Your task to perform on an android device: Do I have any events today? Image 0: 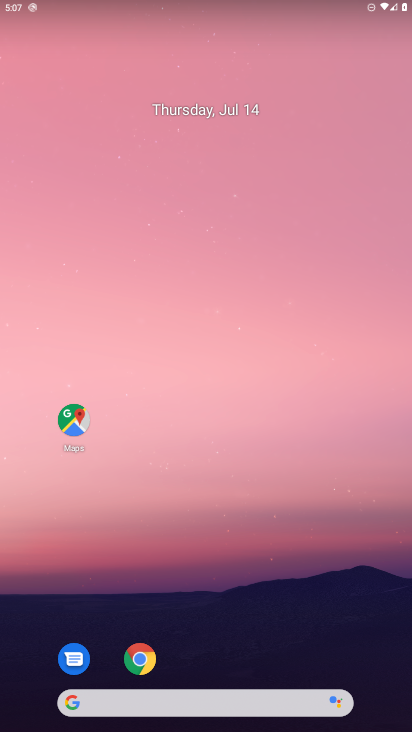
Step 0: press home button
Your task to perform on an android device: Do I have any events today? Image 1: 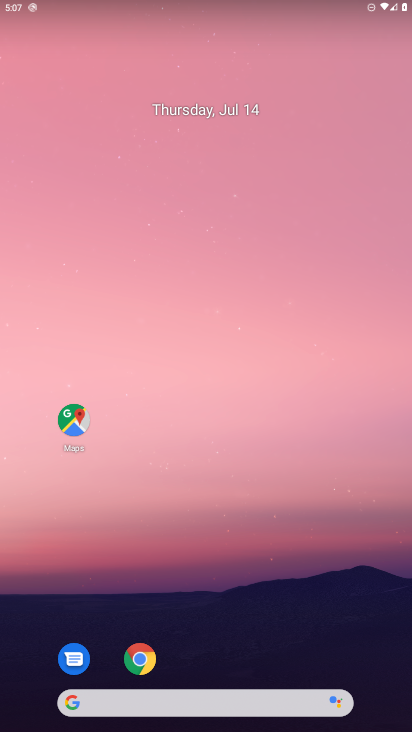
Step 1: drag from (215, 675) to (266, 135)
Your task to perform on an android device: Do I have any events today? Image 2: 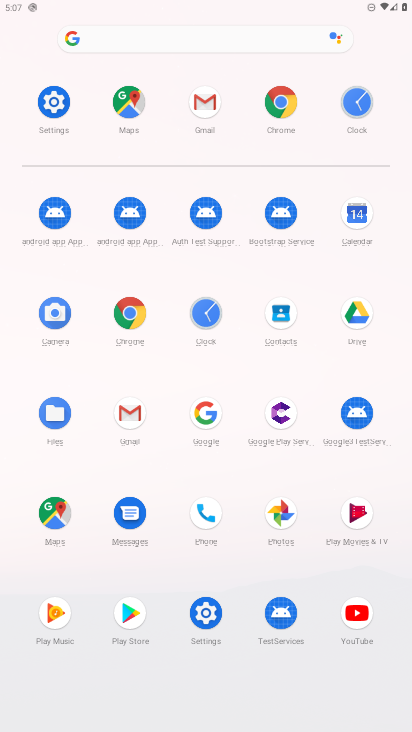
Step 2: click (355, 212)
Your task to perform on an android device: Do I have any events today? Image 3: 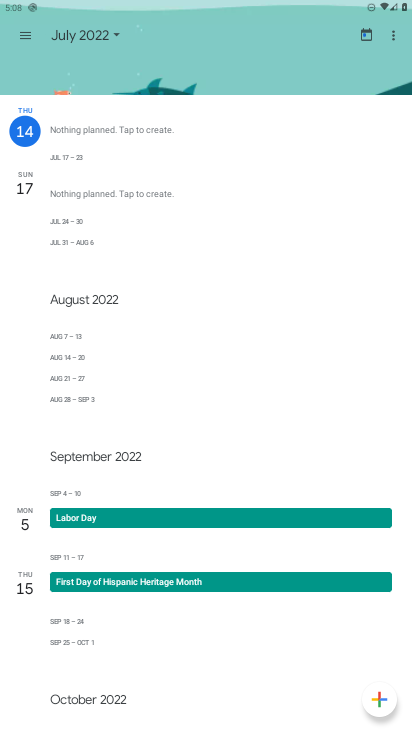
Step 3: click (26, 32)
Your task to perform on an android device: Do I have any events today? Image 4: 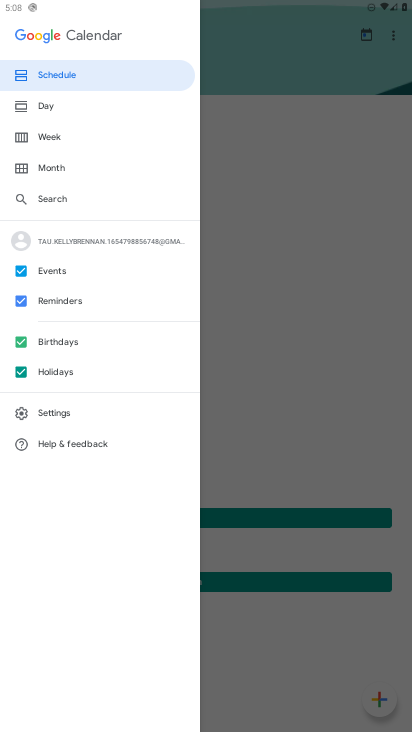
Step 4: click (47, 100)
Your task to perform on an android device: Do I have any events today? Image 5: 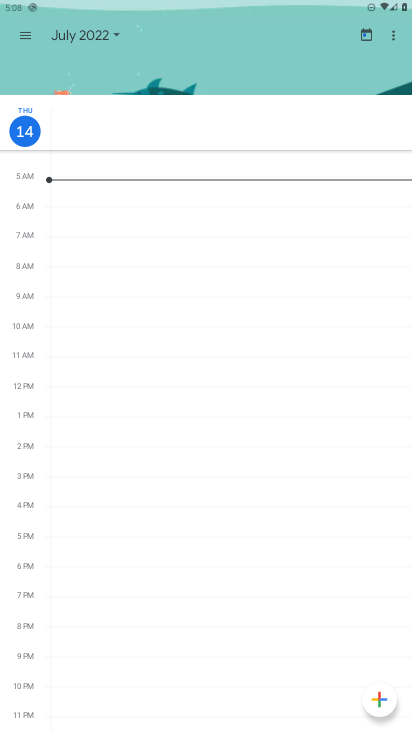
Step 5: task complete